Your task to perform on an android device: Set the phone to "Do not disturb". Image 0: 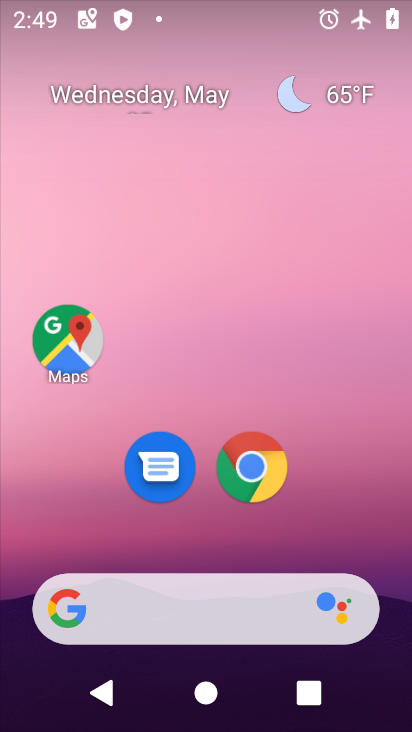
Step 0: drag from (191, 15) to (188, 388)
Your task to perform on an android device: Set the phone to "Do not disturb". Image 1: 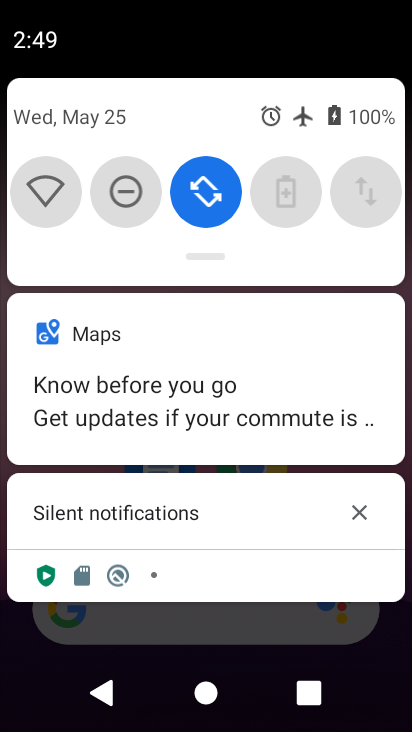
Step 1: click (112, 183)
Your task to perform on an android device: Set the phone to "Do not disturb". Image 2: 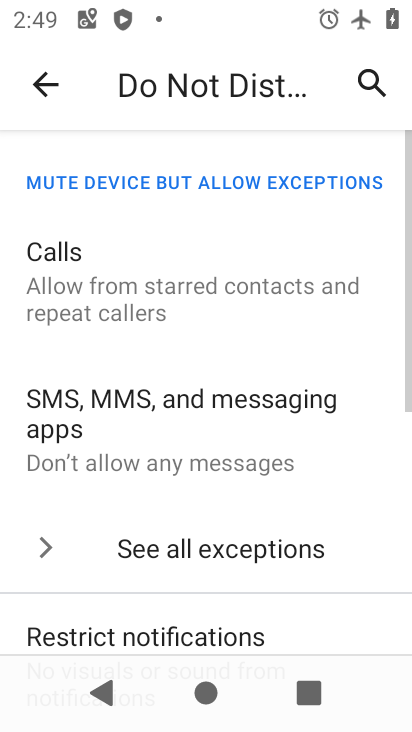
Step 2: drag from (262, 566) to (274, 253)
Your task to perform on an android device: Set the phone to "Do not disturb". Image 3: 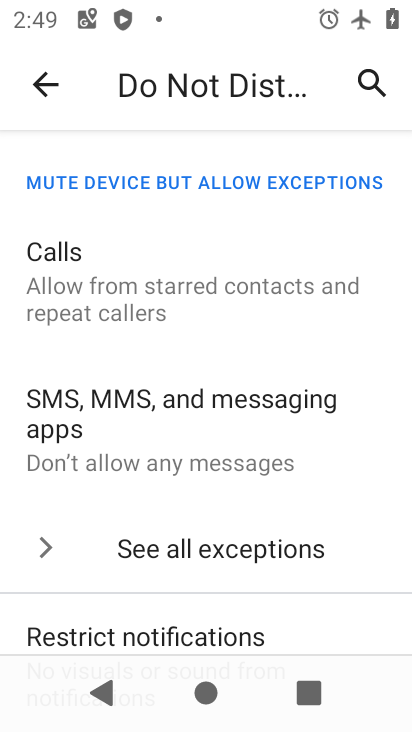
Step 3: drag from (225, 599) to (235, 307)
Your task to perform on an android device: Set the phone to "Do not disturb". Image 4: 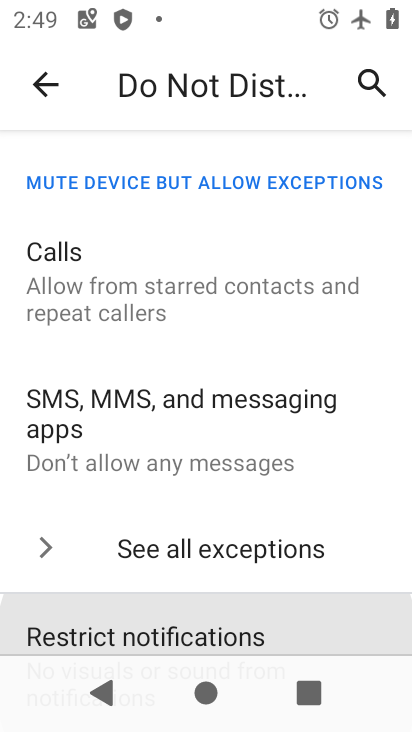
Step 4: drag from (255, 504) to (259, 280)
Your task to perform on an android device: Set the phone to "Do not disturb". Image 5: 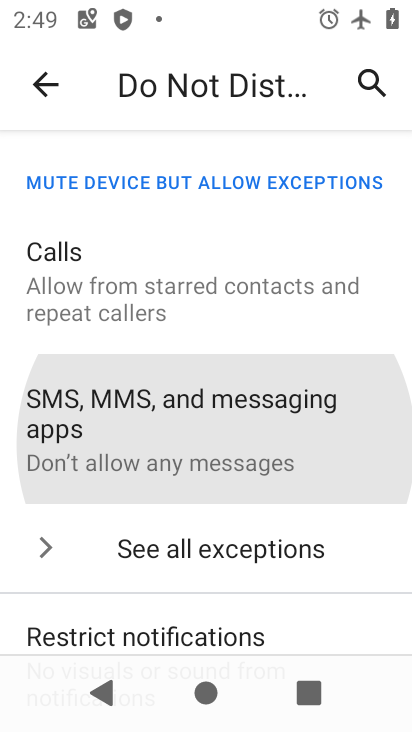
Step 5: drag from (296, 511) to (311, 246)
Your task to perform on an android device: Set the phone to "Do not disturb". Image 6: 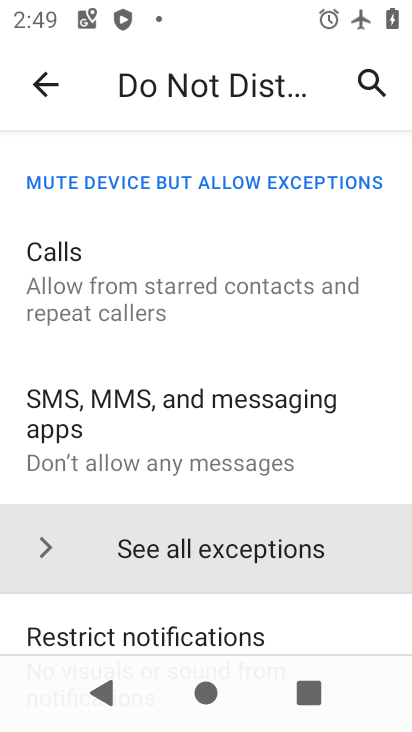
Step 6: drag from (316, 532) to (318, 293)
Your task to perform on an android device: Set the phone to "Do not disturb". Image 7: 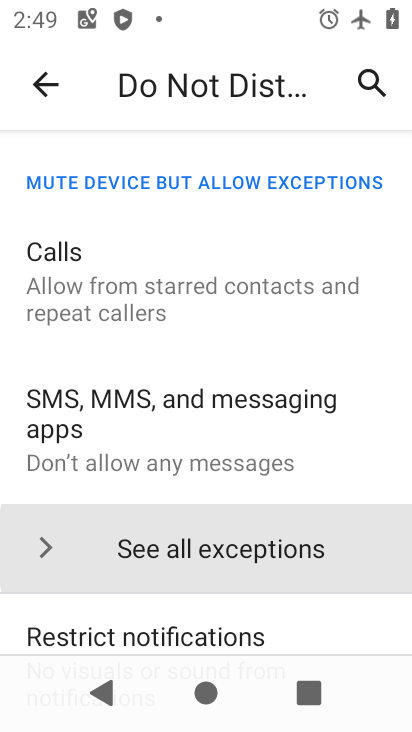
Step 7: drag from (292, 457) to (303, 291)
Your task to perform on an android device: Set the phone to "Do not disturb". Image 8: 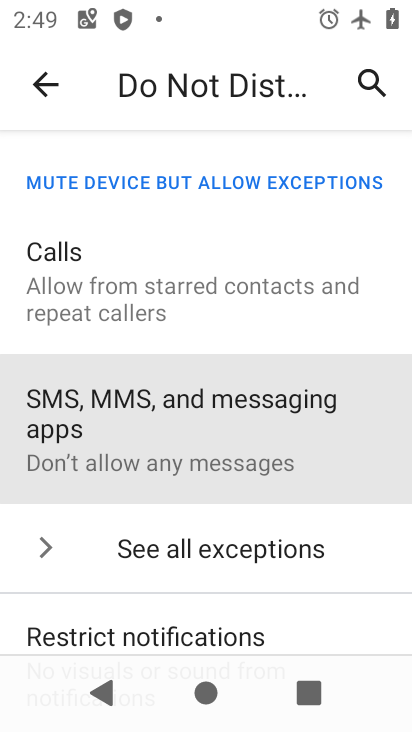
Step 8: drag from (231, 549) to (262, 206)
Your task to perform on an android device: Set the phone to "Do not disturb". Image 9: 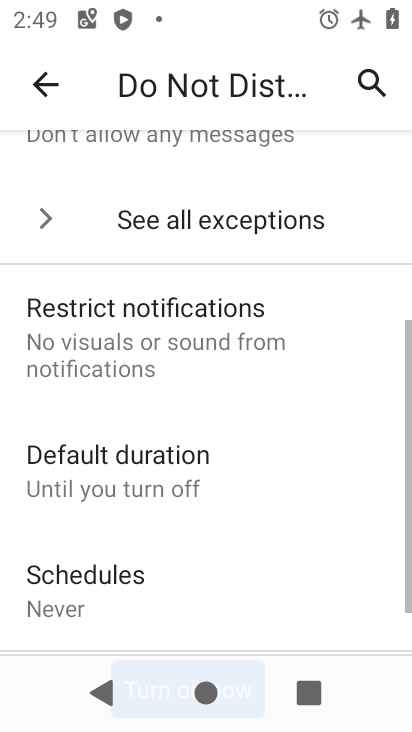
Step 9: drag from (247, 421) to (272, 175)
Your task to perform on an android device: Set the phone to "Do not disturb". Image 10: 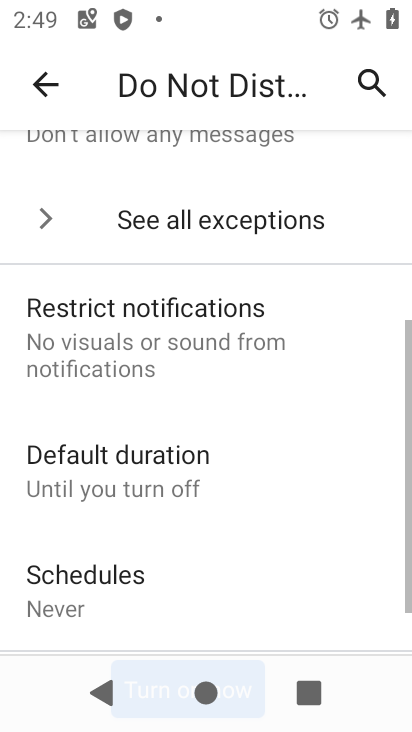
Step 10: drag from (296, 519) to (334, 258)
Your task to perform on an android device: Set the phone to "Do not disturb". Image 11: 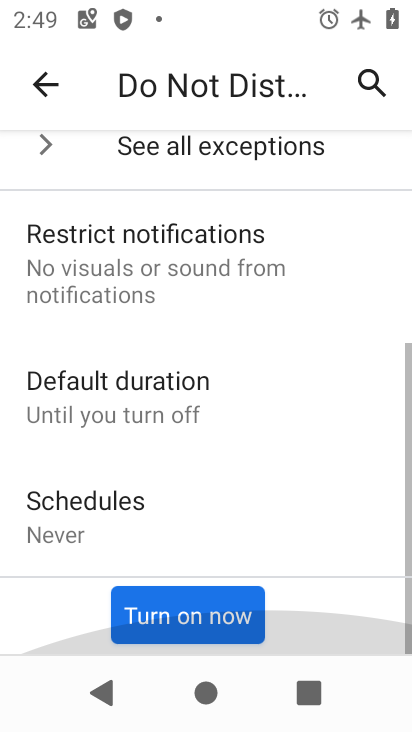
Step 11: drag from (285, 507) to (301, 230)
Your task to perform on an android device: Set the phone to "Do not disturb". Image 12: 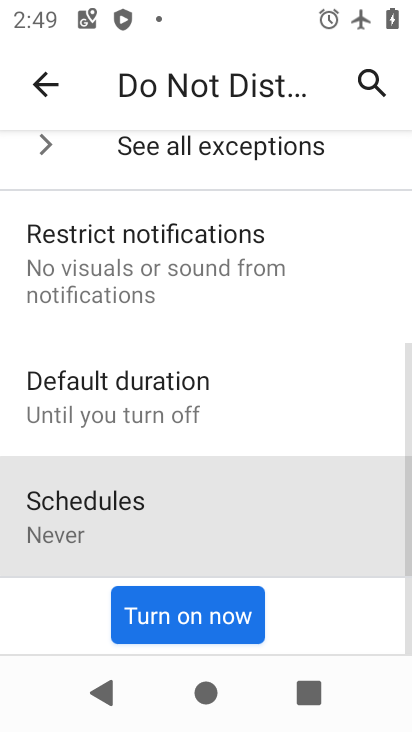
Step 12: drag from (231, 480) to (254, 267)
Your task to perform on an android device: Set the phone to "Do not disturb". Image 13: 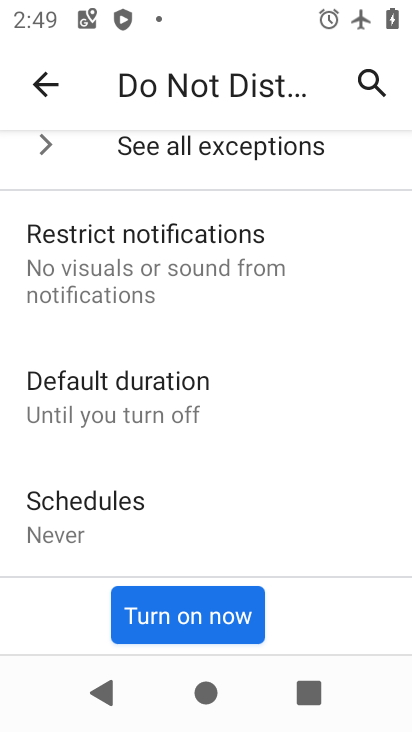
Step 13: click (200, 617)
Your task to perform on an android device: Set the phone to "Do not disturb". Image 14: 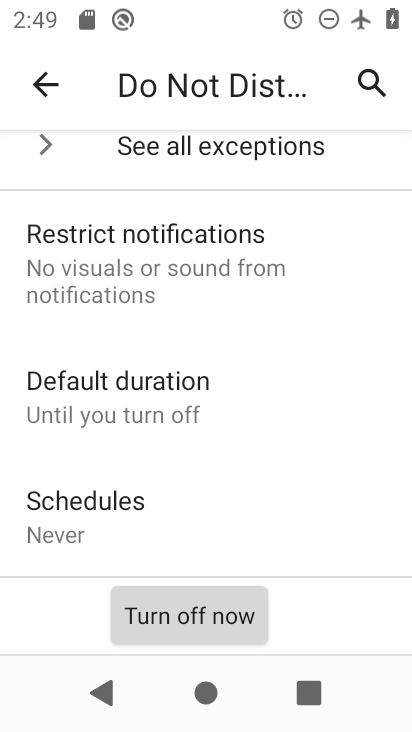
Step 14: task complete